Your task to perform on an android device: Open internet settings Image 0: 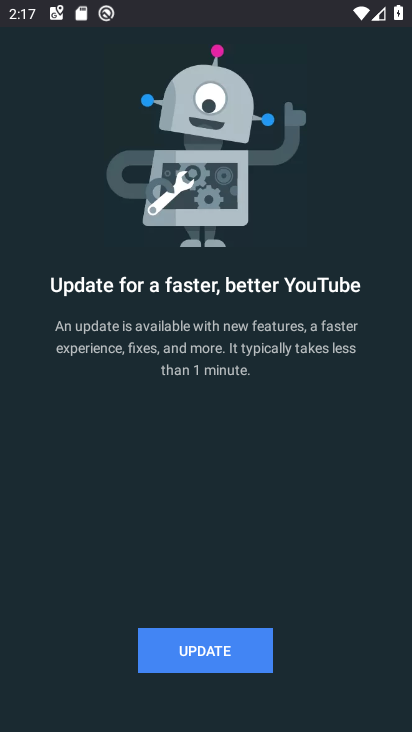
Step 0: press home button
Your task to perform on an android device: Open internet settings Image 1: 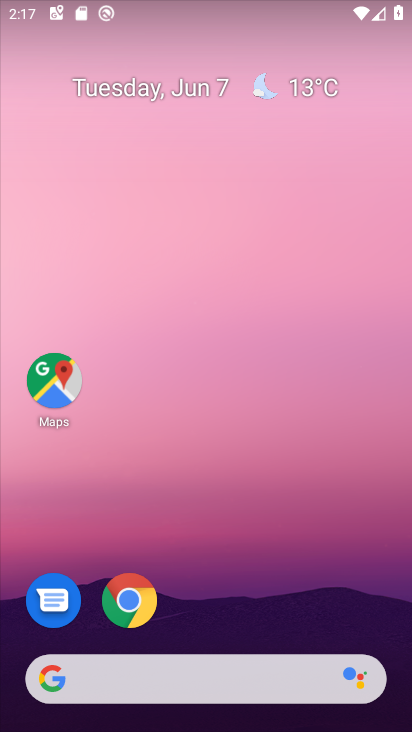
Step 1: drag from (246, 610) to (289, 8)
Your task to perform on an android device: Open internet settings Image 2: 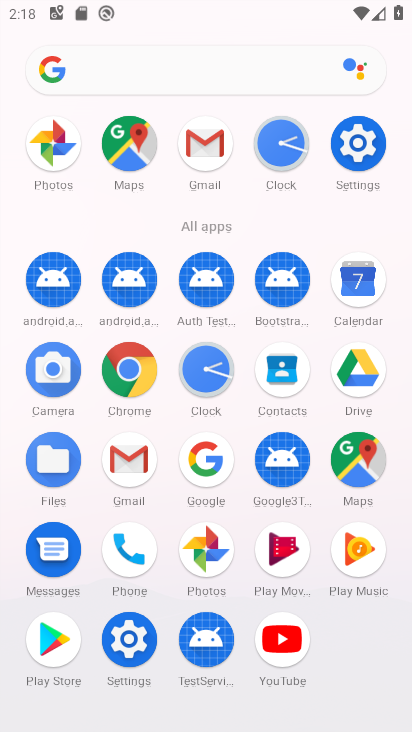
Step 2: click (372, 168)
Your task to perform on an android device: Open internet settings Image 3: 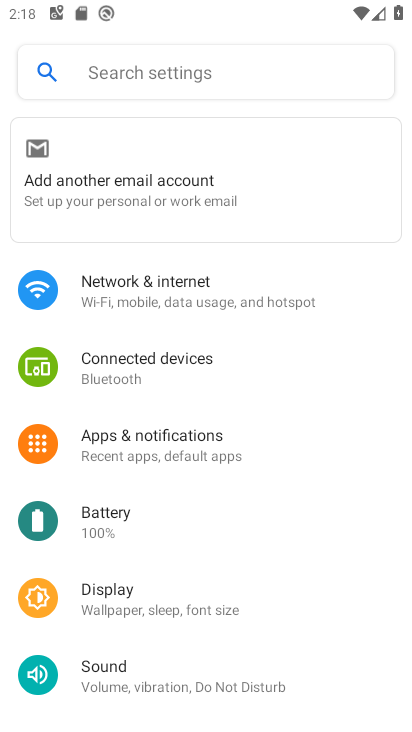
Step 3: click (164, 300)
Your task to perform on an android device: Open internet settings Image 4: 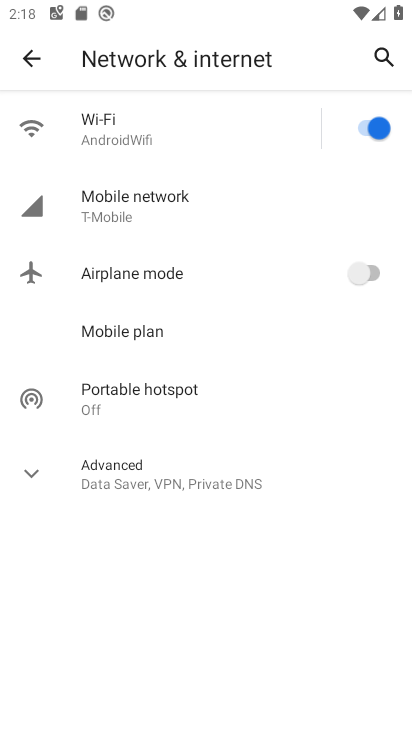
Step 4: task complete